Your task to perform on an android device: check android version Image 0: 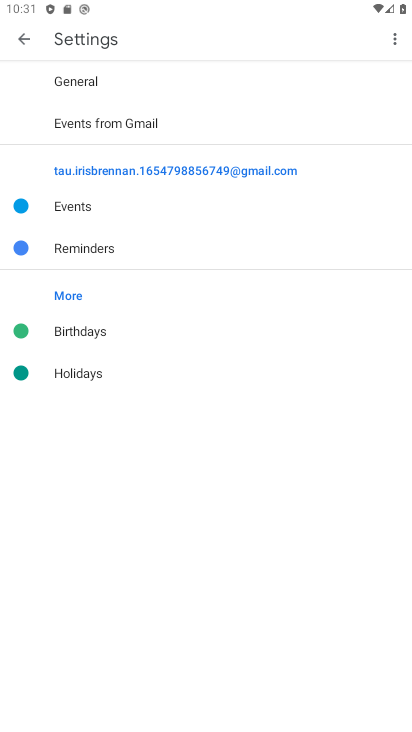
Step 0: press home button
Your task to perform on an android device: check android version Image 1: 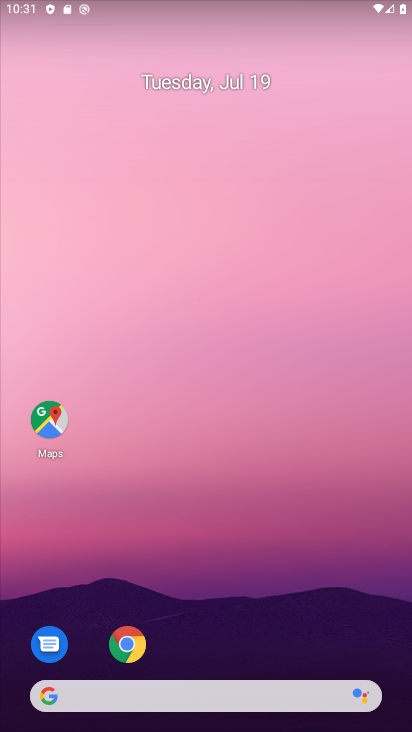
Step 1: drag from (254, 615) to (235, 149)
Your task to perform on an android device: check android version Image 2: 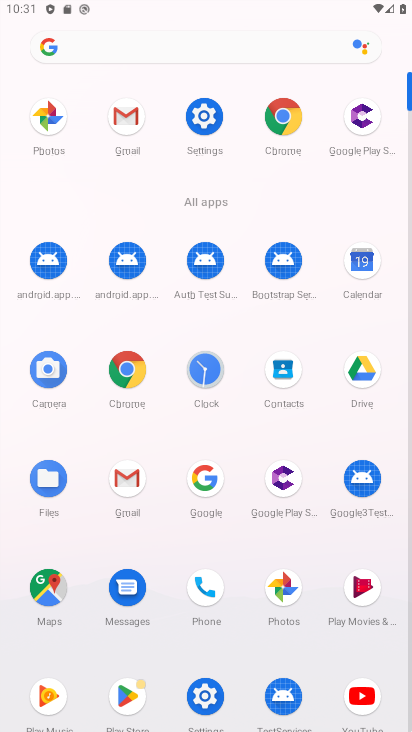
Step 2: click (206, 108)
Your task to perform on an android device: check android version Image 3: 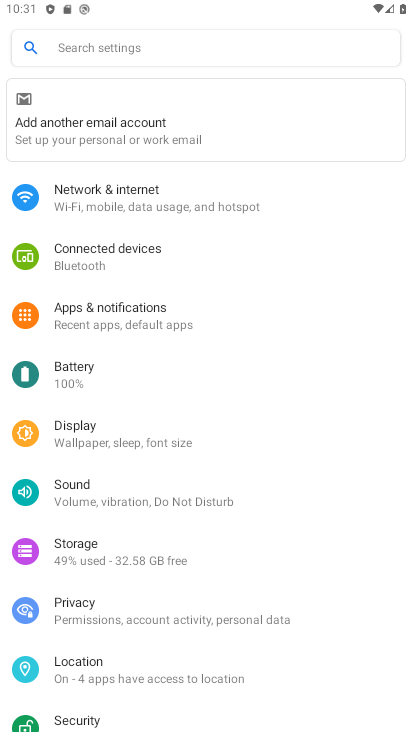
Step 3: drag from (293, 666) to (283, 315)
Your task to perform on an android device: check android version Image 4: 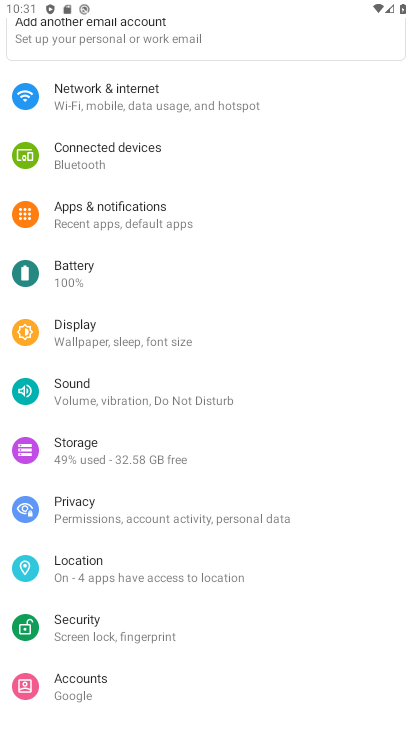
Step 4: drag from (278, 621) to (286, 153)
Your task to perform on an android device: check android version Image 5: 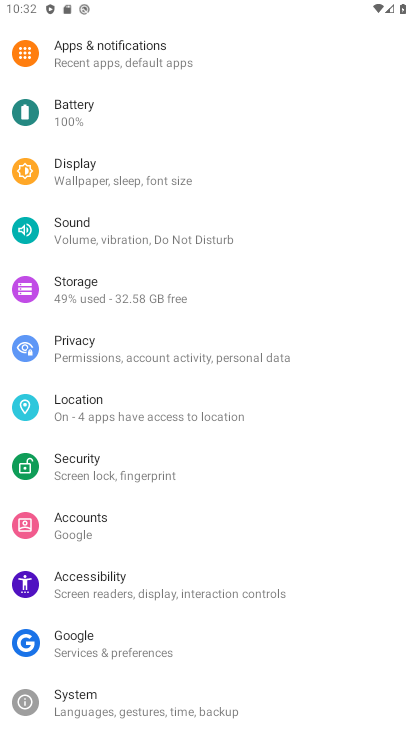
Step 5: drag from (176, 640) to (176, 266)
Your task to perform on an android device: check android version Image 6: 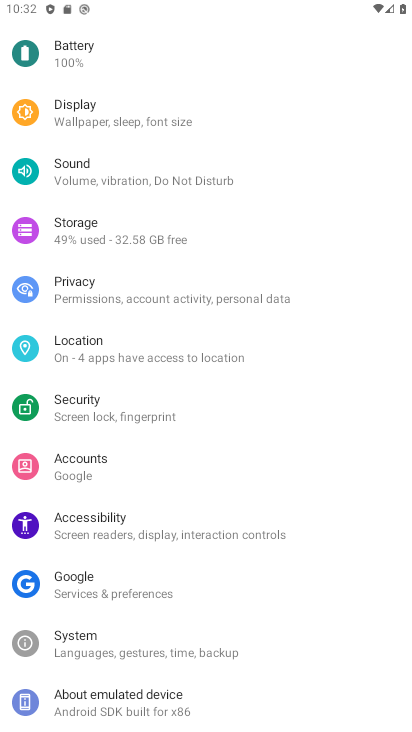
Step 6: click (157, 693)
Your task to perform on an android device: check android version Image 7: 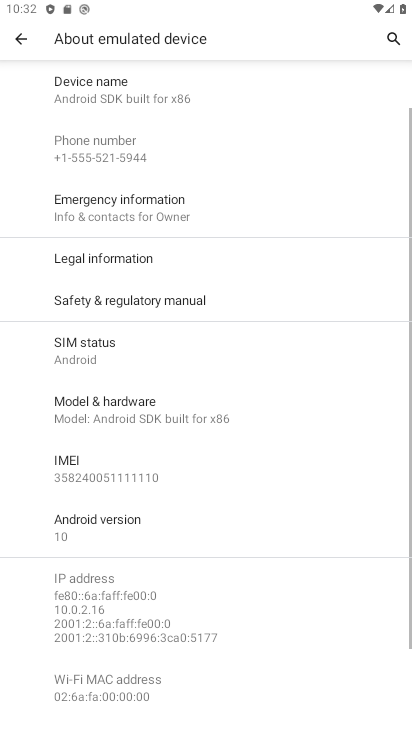
Step 7: task complete